Your task to perform on an android device: Open the calendar and show me this week's events? Image 0: 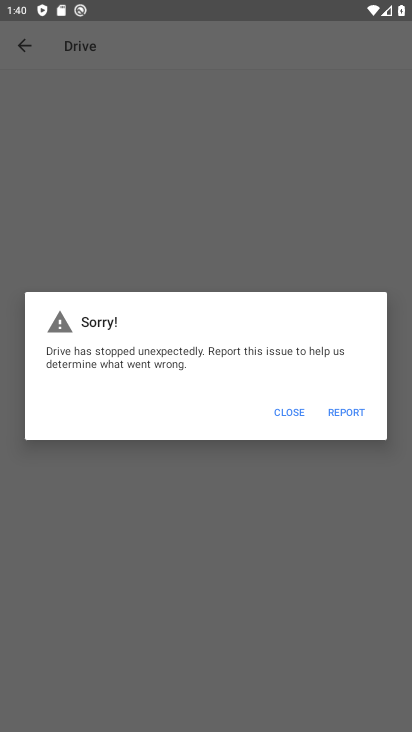
Step 0: drag from (231, 559) to (160, 86)
Your task to perform on an android device: Open the calendar and show me this week's events? Image 1: 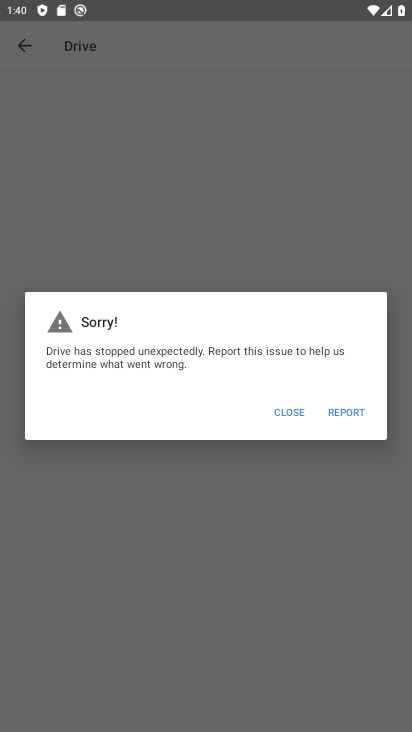
Step 1: press home button
Your task to perform on an android device: Open the calendar and show me this week's events? Image 2: 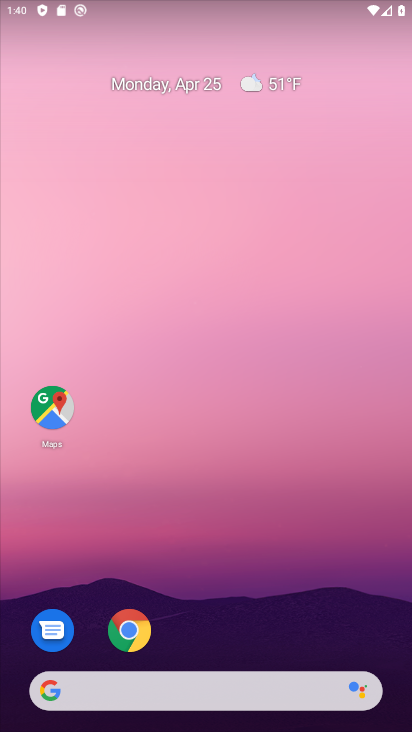
Step 2: drag from (295, 584) to (245, 29)
Your task to perform on an android device: Open the calendar and show me this week's events? Image 3: 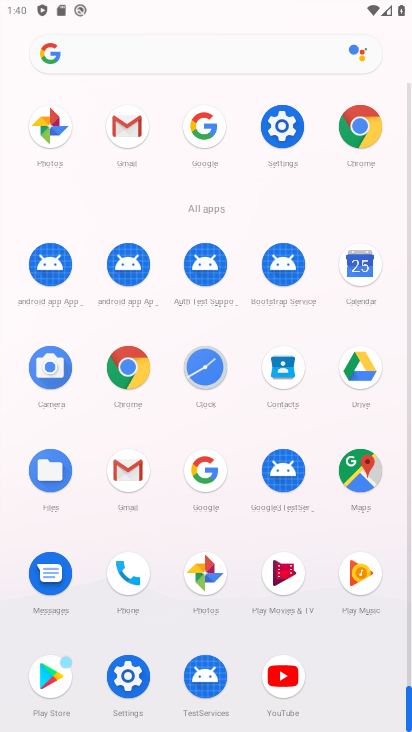
Step 3: click (365, 288)
Your task to perform on an android device: Open the calendar and show me this week's events? Image 4: 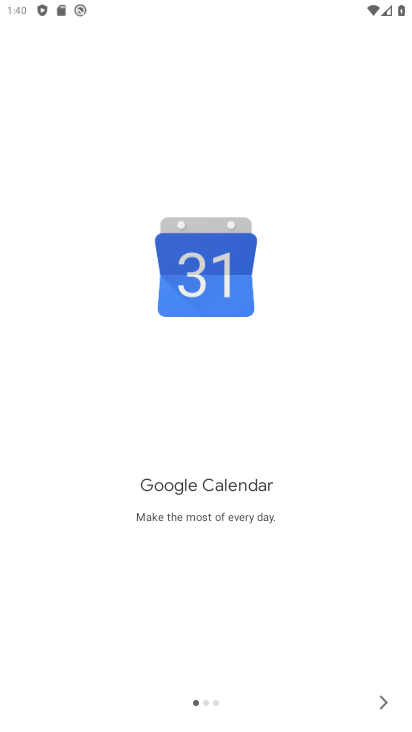
Step 4: click (385, 700)
Your task to perform on an android device: Open the calendar and show me this week's events? Image 5: 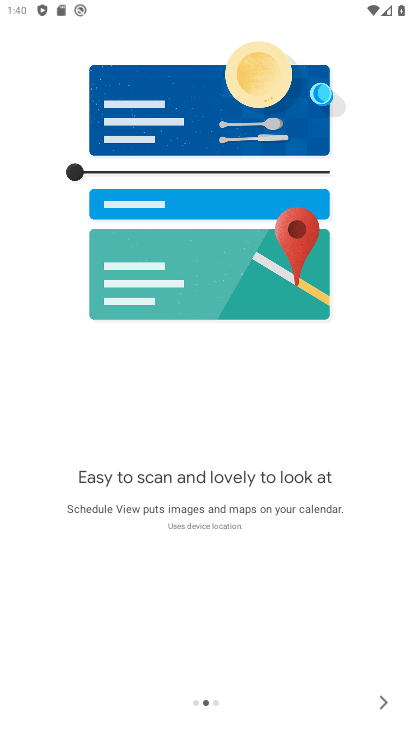
Step 5: click (384, 697)
Your task to perform on an android device: Open the calendar and show me this week's events? Image 6: 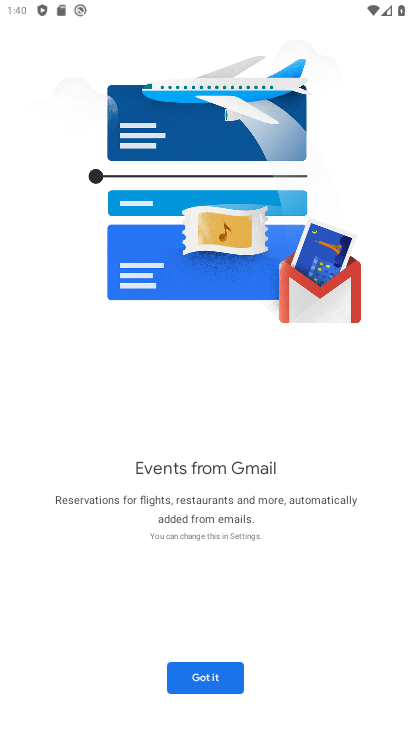
Step 6: click (219, 686)
Your task to perform on an android device: Open the calendar and show me this week's events? Image 7: 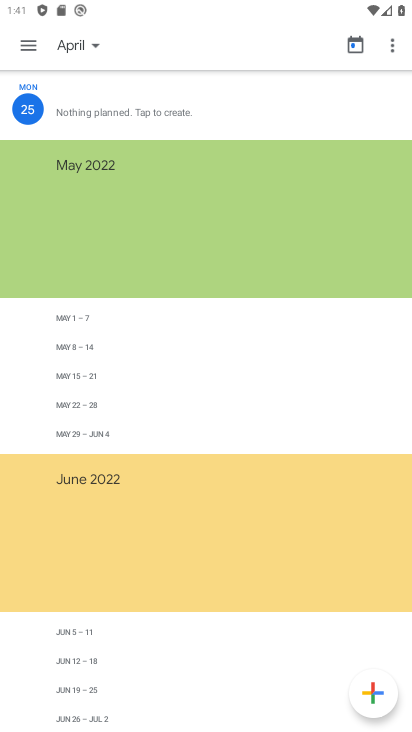
Step 7: click (91, 45)
Your task to perform on an android device: Open the calendar and show me this week's events? Image 8: 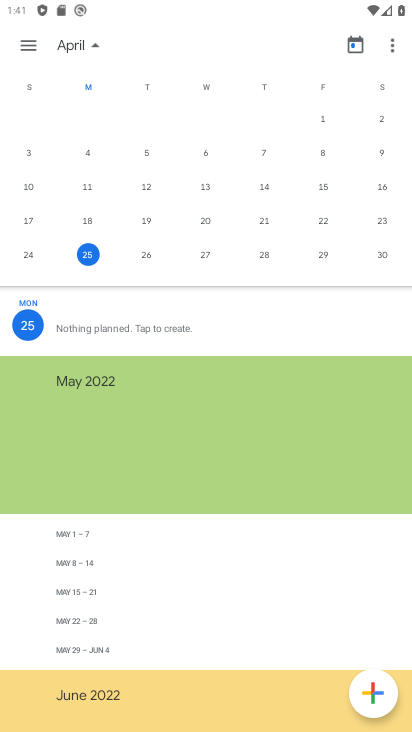
Step 8: task complete